Your task to perform on an android device: open app "Google Play Music" (install if not already installed) Image 0: 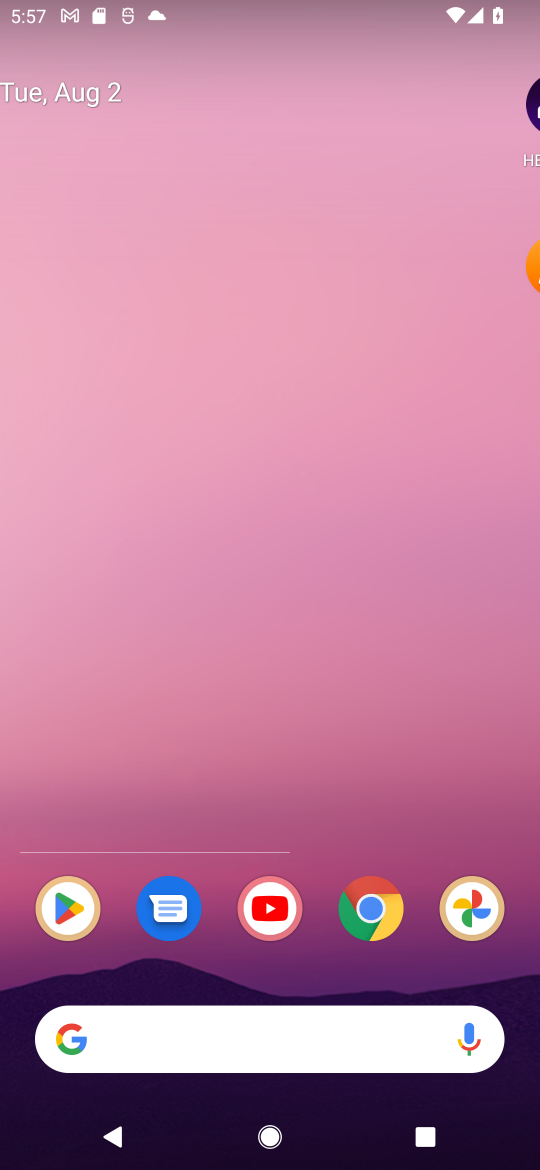
Step 0: press home button
Your task to perform on an android device: open app "Google Play Music" (install if not already installed) Image 1: 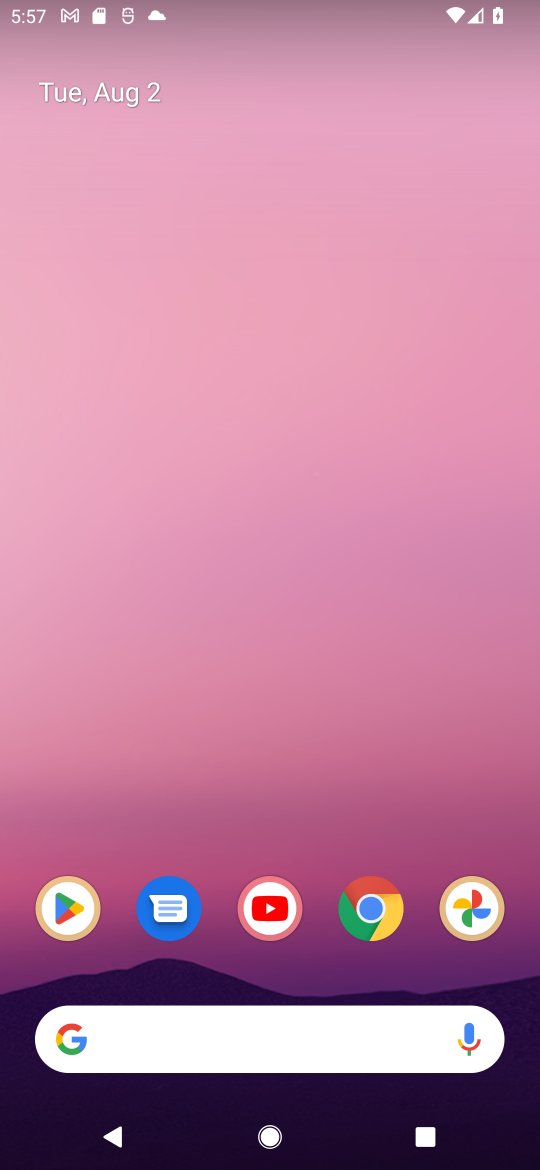
Step 1: click (60, 899)
Your task to perform on an android device: open app "Google Play Music" (install if not already installed) Image 2: 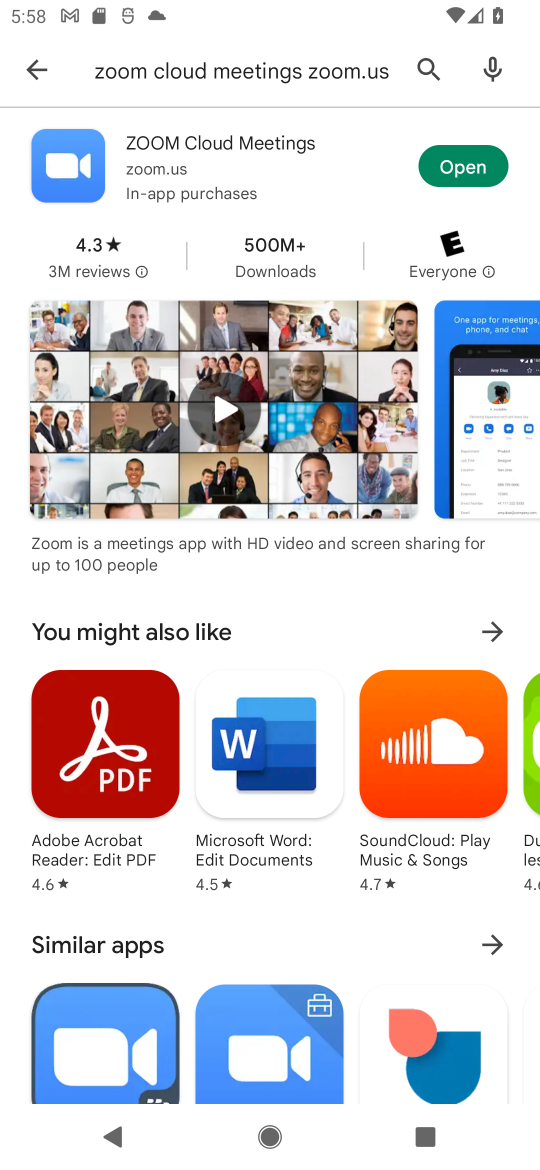
Step 2: click (423, 62)
Your task to perform on an android device: open app "Google Play Music" (install if not already installed) Image 3: 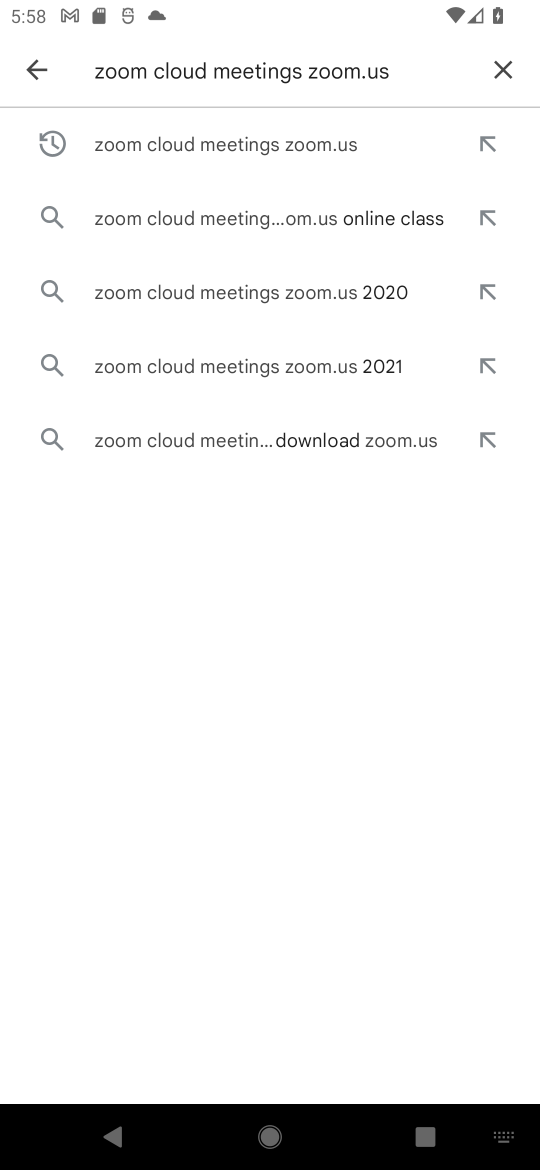
Step 3: click (495, 71)
Your task to perform on an android device: open app "Google Play Music" (install if not already installed) Image 4: 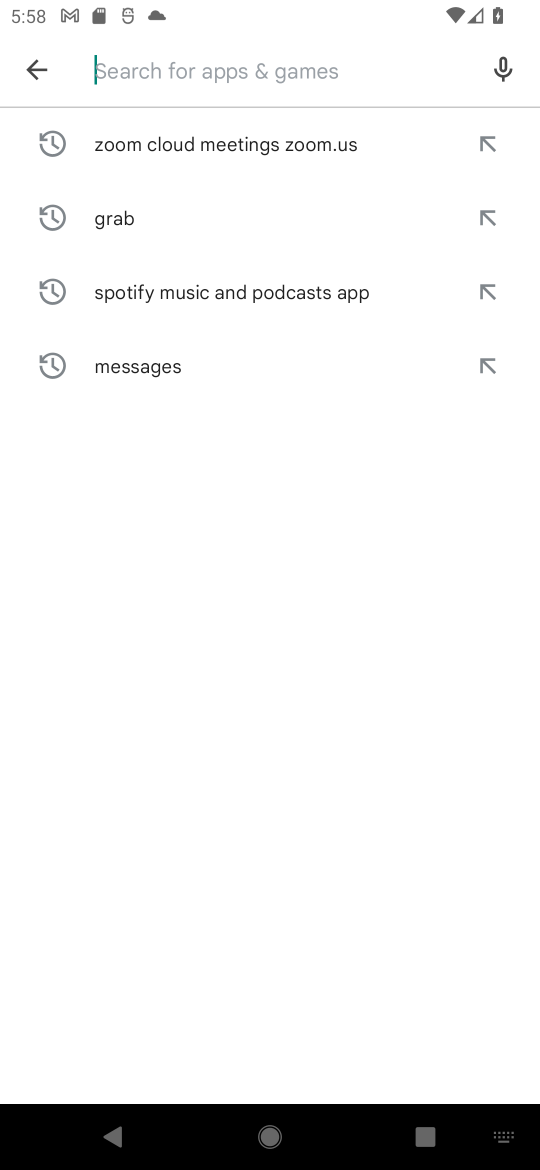
Step 4: type "Google Play Music"
Your task to perform on an android device: open app "Google Play Music" (install if not already installed) Image 5: 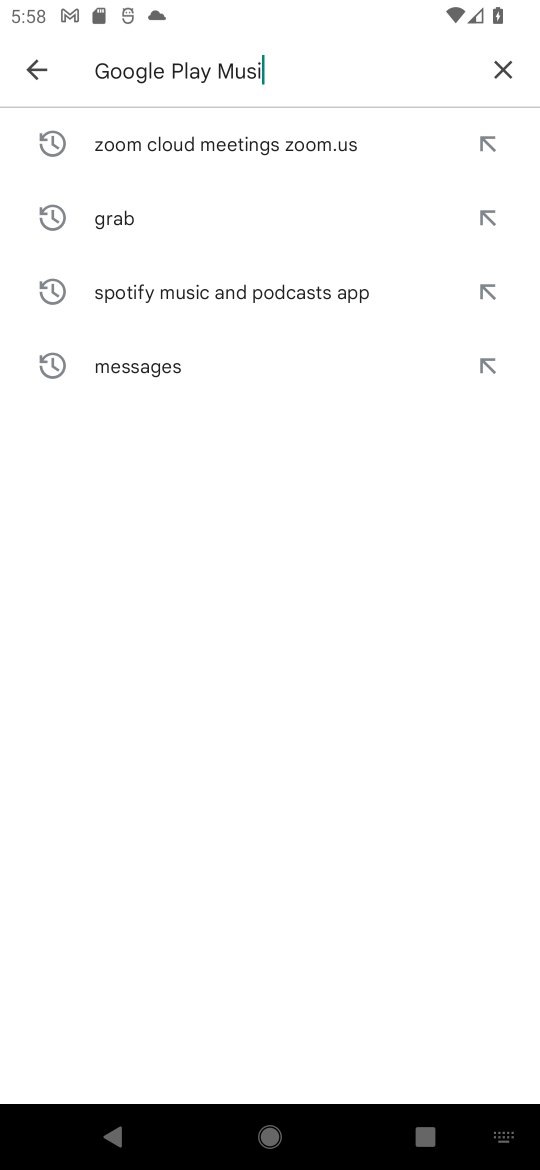
Step 5: type ""
Your task to perform on an android device: open app "Google Play Music" (install if not already installed) Image 6: 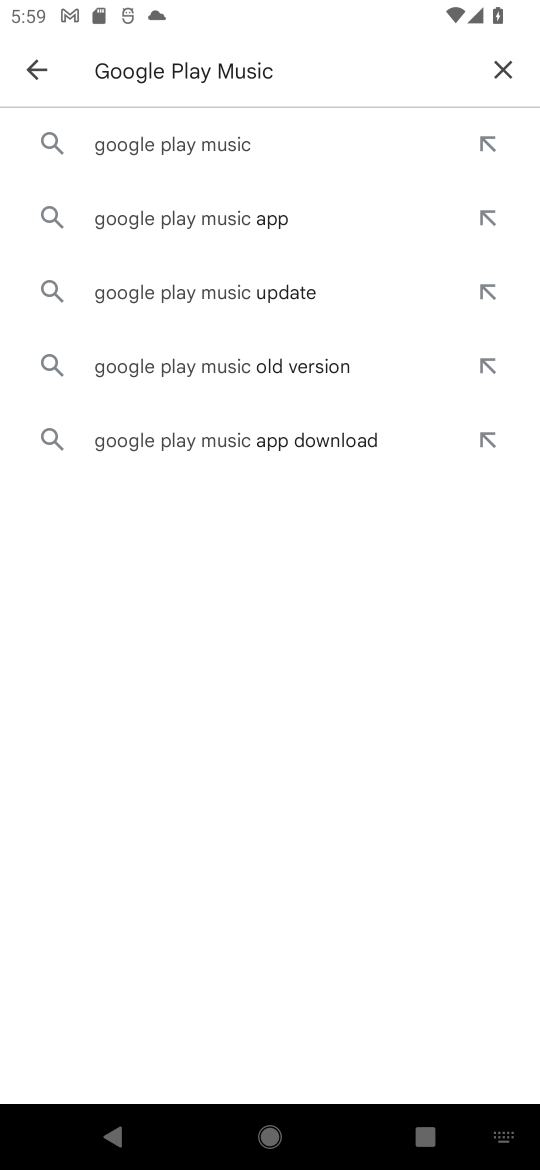
Step 6: task complete